Your task to perform on an android device: Open sound settings Image 0: 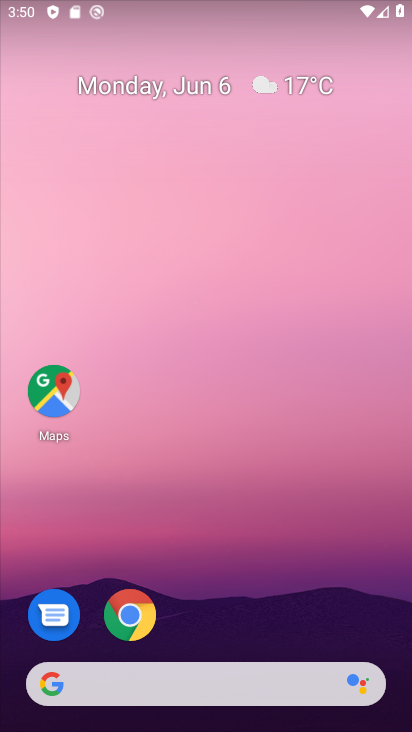
Step 0: drag from (316, 576) to (188, 5)
Your task to perform on an android device: Open sound settings Image 1: 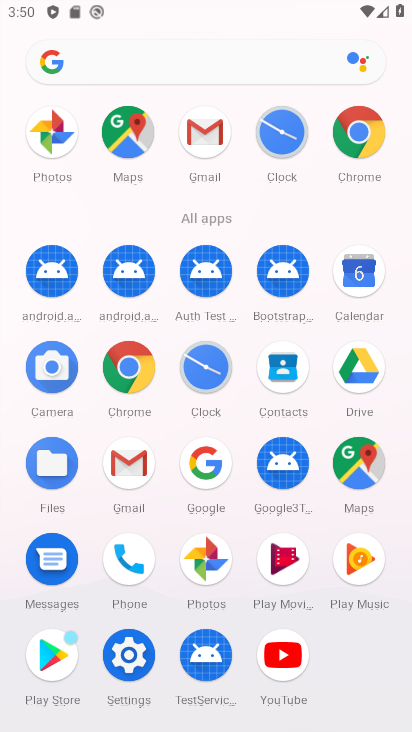
Step 1: drag from (0, 586) to (3, 295)
Your task to perform on an android device: Open sound settings Image 2: 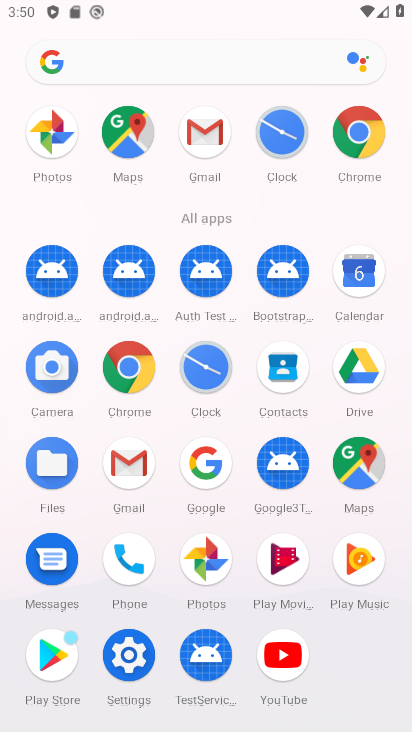
Step 2: click (129, 651)
Your task to perform on an android device: Open sound settings Image 3: 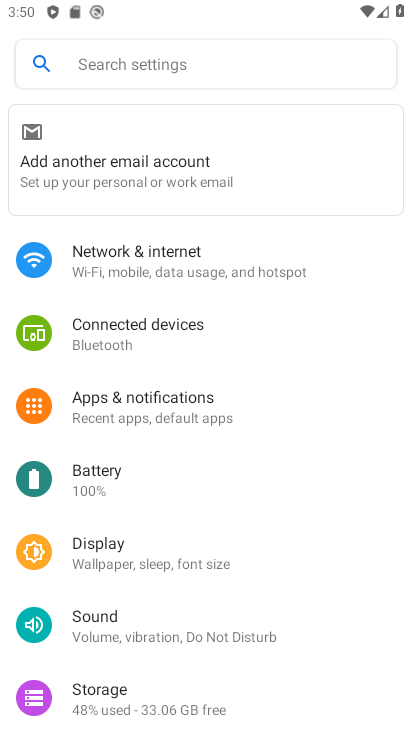
Step 3: click (132, 627)
Your task to perform on an android device: Open sound settings Image 4: 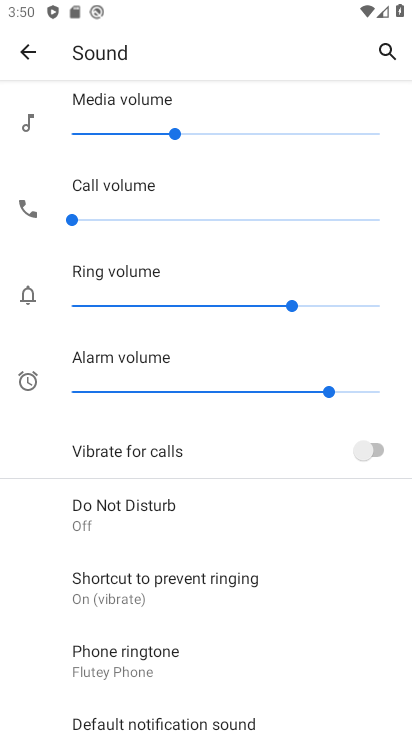
Step 4: drag from (240, 606) to (261, 179)
Your task to perform on an android device: Open sound settings Image 5: 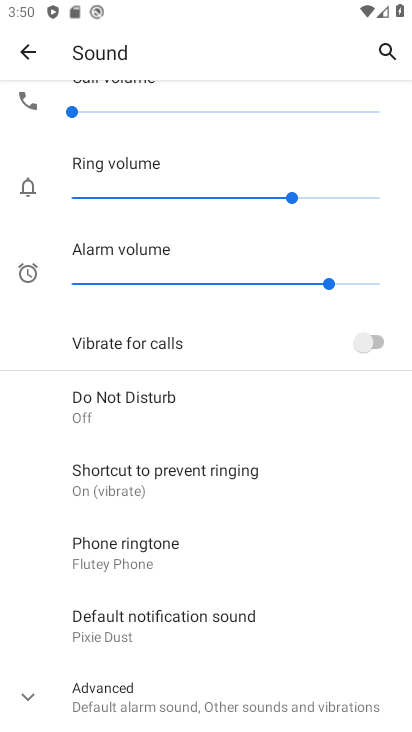
Step 5: click (30, 714)
Your task to perform on an android device: Open sound settings Image 6: 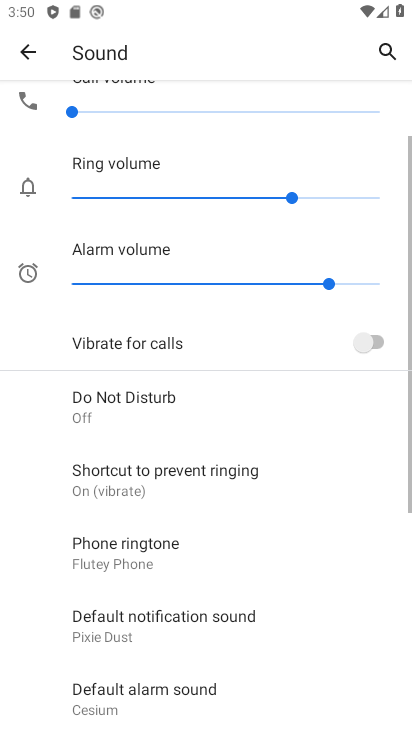
Step 6: task complete